Your task to perform on an android device: Go to settings Image 0: 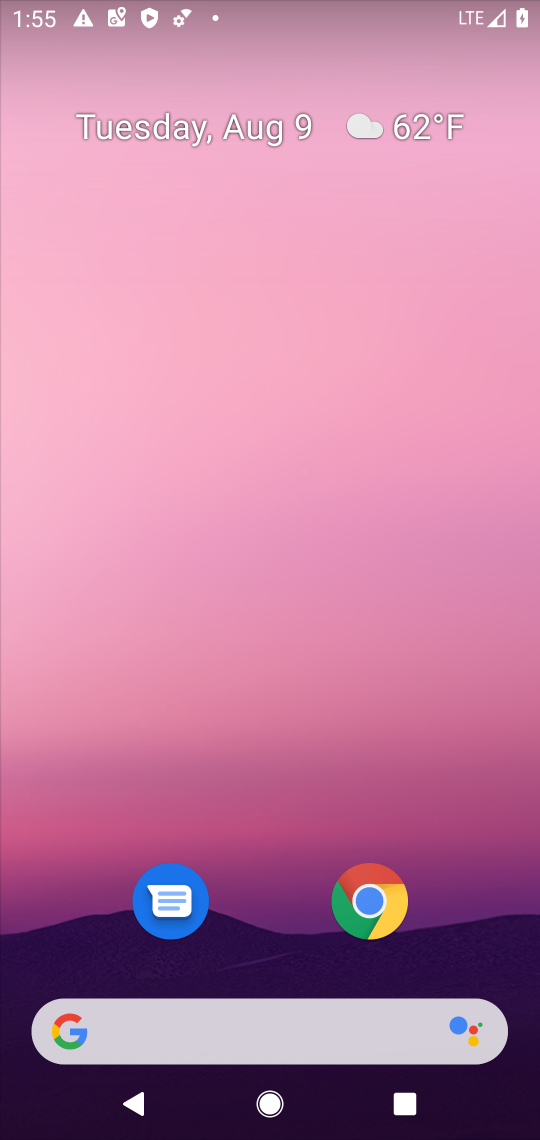
Step 0: drag from (494, 960) to (452, 209)
Your task to perform on an android device: Go to settings Image 1: 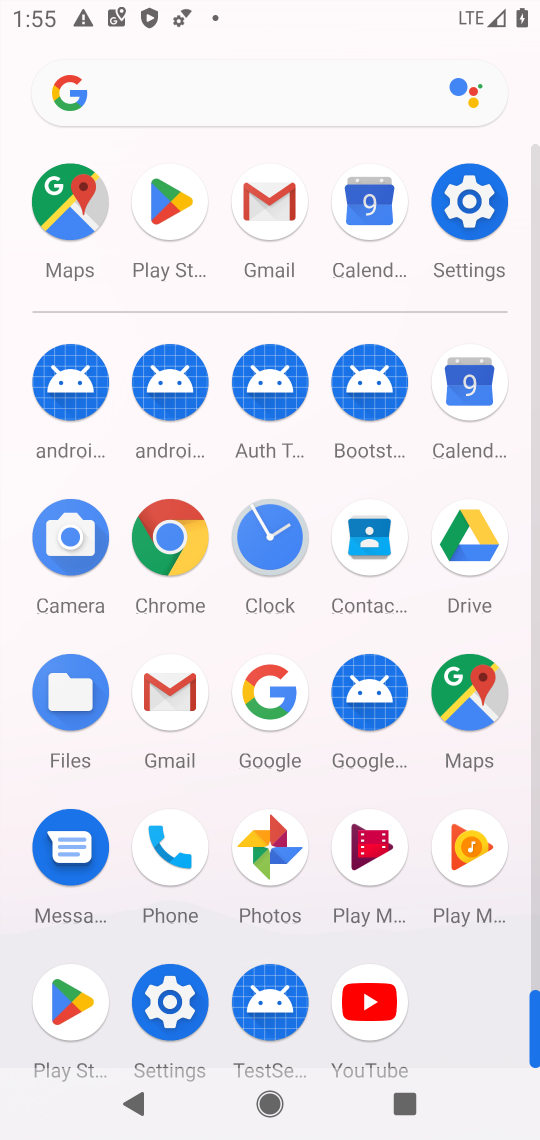
Step 1: click (168, 1005)
Your task to perform on an android device: Go to settings Image 2: 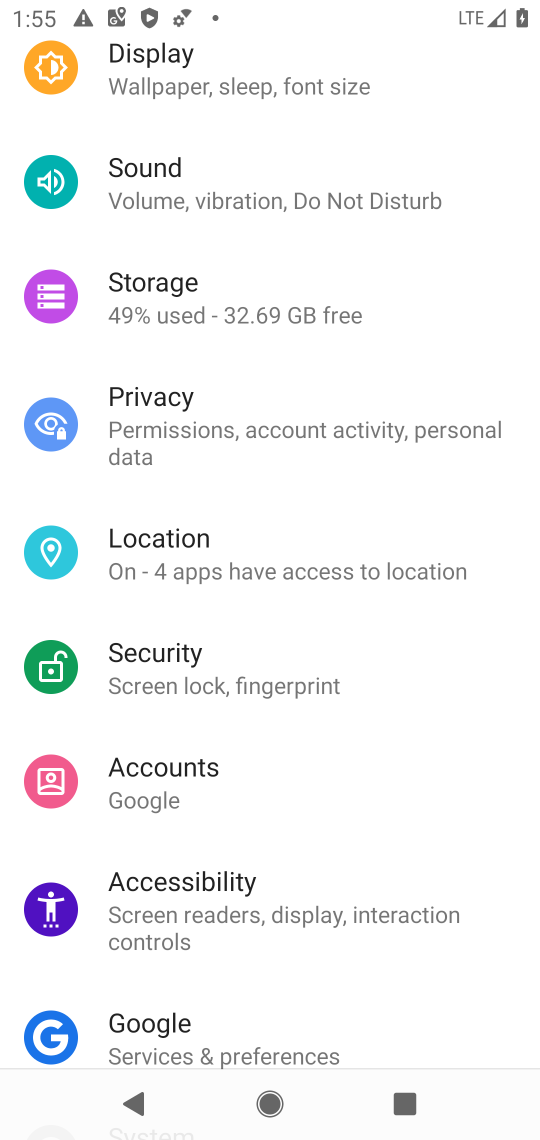
Step 2: task complete